Your task to perform on an android device: Open calendar and show me the fourth week of next month Image 0: 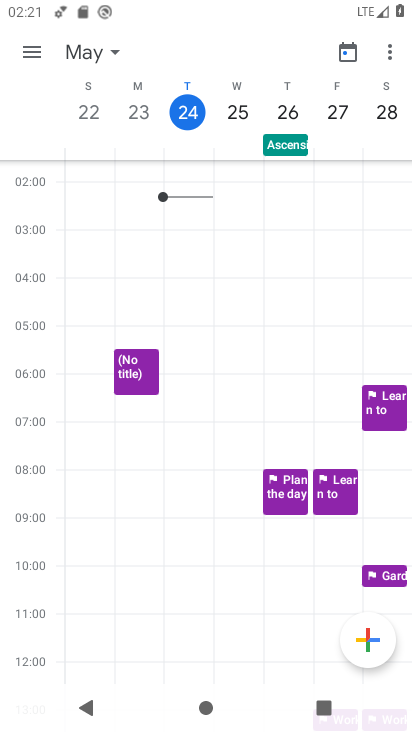
Step 0: press home button
Your task to perform on an android device: Open calendar and show me the fourth week of next month Image 1: 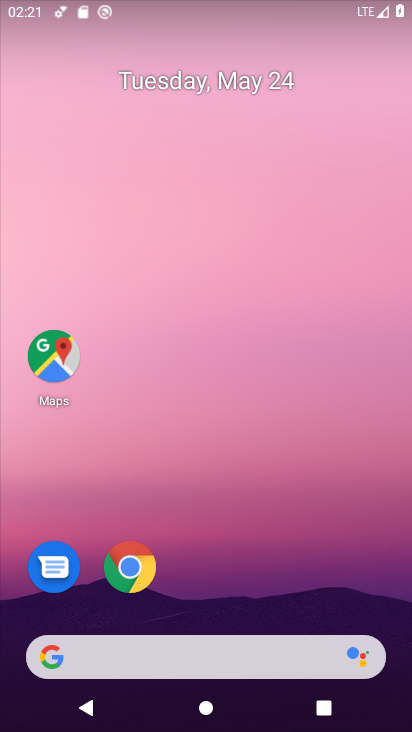
Step 1: drag from (192, 550) to (239, 106)
Your task to perform on an android device: Open calendar and show me the fourth week of next month Image 2: 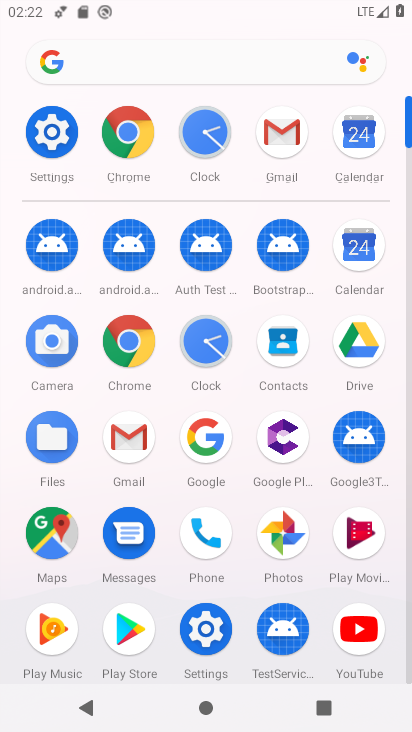
Step 2: click (354, 245)
Your task to perform on an android device: Open calendar and show me the fourth week of next month Image 3: 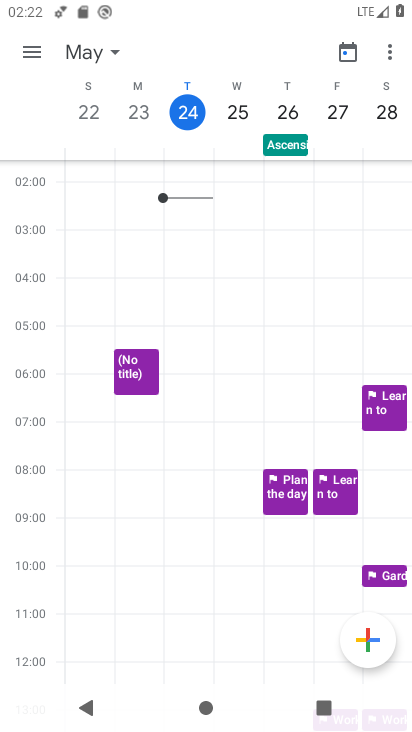
Step 3: task complete